Your task to perform on an android device: Search for pizza restaurants on Maps Image 0: 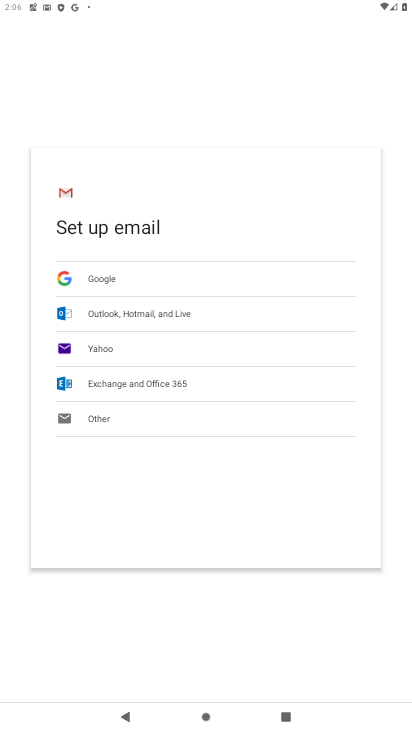
Step 0: task complete